Your task to perform on an android device: Find coffee shops on Maps Image 0: 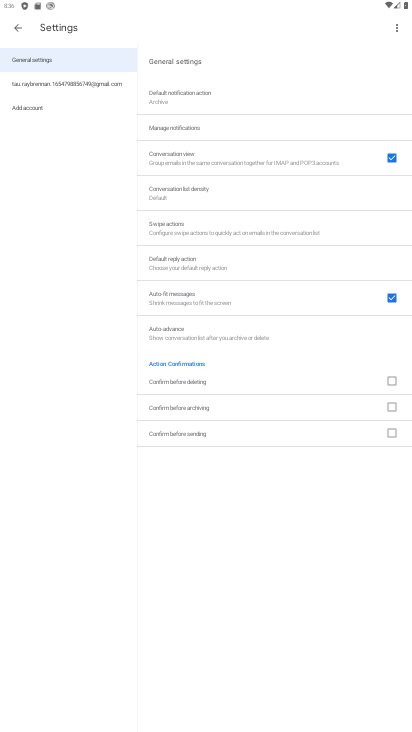
Step 0: press home button
Your task to perform on an android device: Find coffee shops on Maps Image 1: 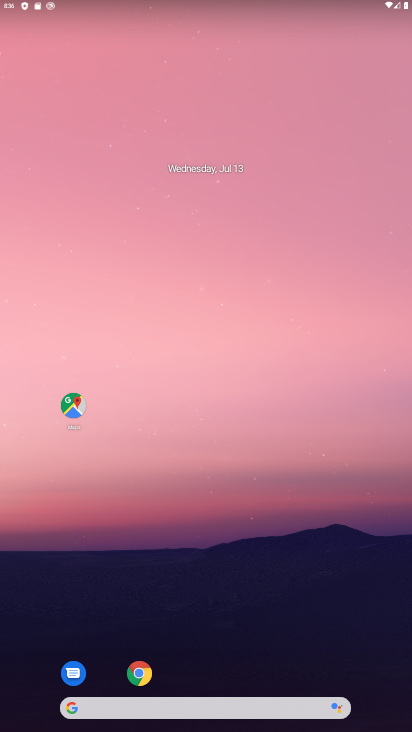
Step 1: click (78, 412)
Your task to perform on an android device: Find coffee shops on Maps Image 2: 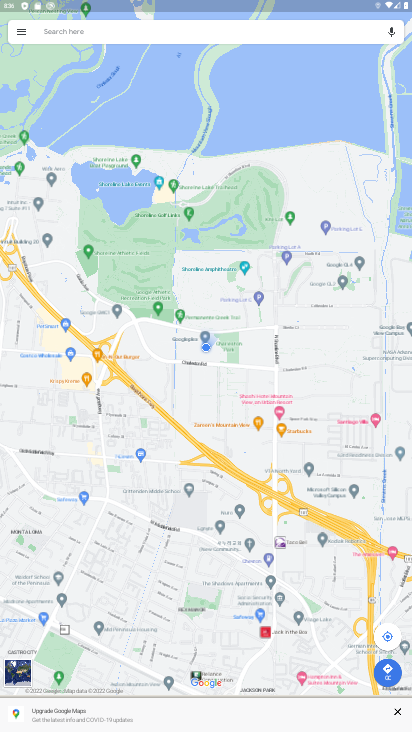
Step 2: click (106, 37)
Your task to perform on an android device: Find coffee shops on Maps Image 3: 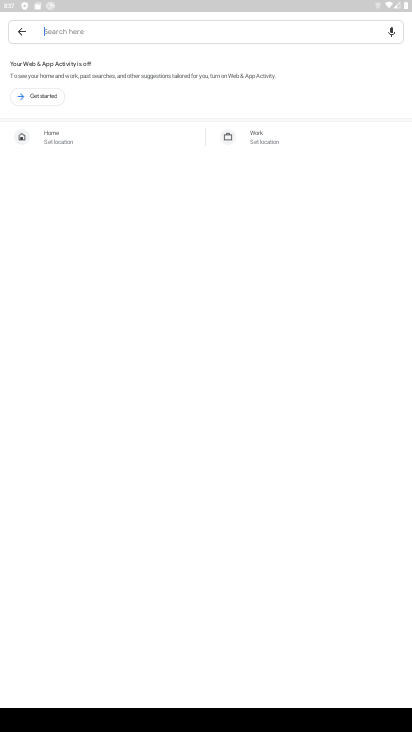
Step 3: type "coffe shop"
Your task to perform on an android device: Find coffee shops on Maps Image 4: 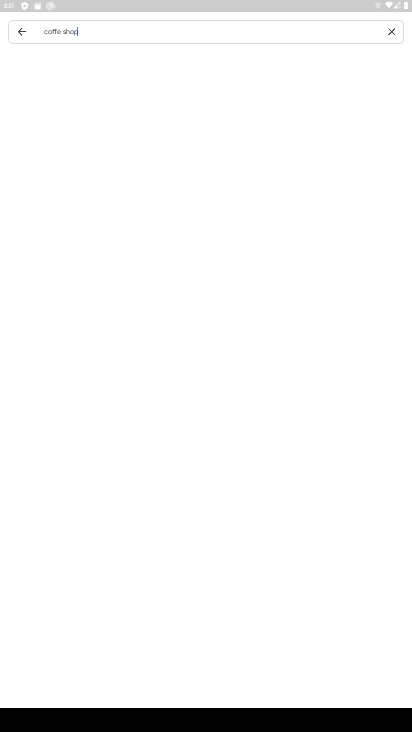
Step 4: type ""
Your task to perform on an android device: Find coffee shops on Maps Image 5: 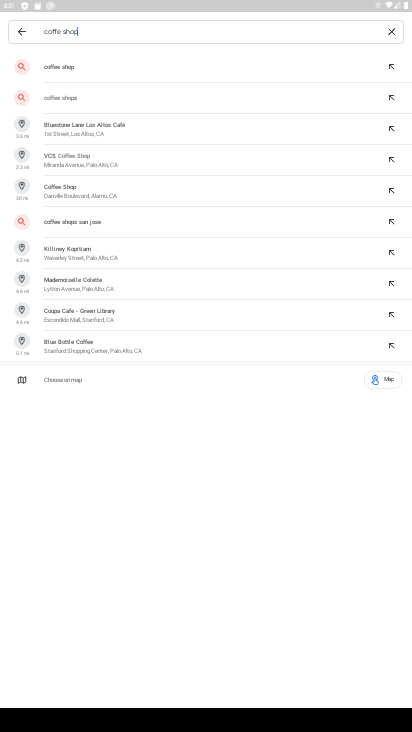
Step 5: type ""
Your task to perform on an android device: Find coffee shops on Maps Image 6: 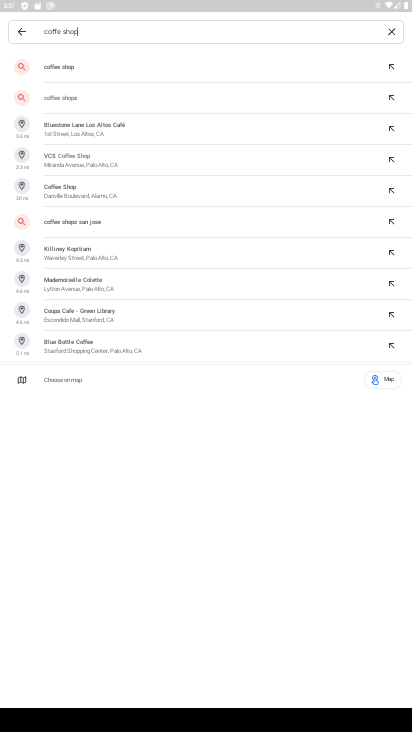
Step 6: click (203, 54)
Your task to perform on an android device: Find coffee shops on Maps Image 7: 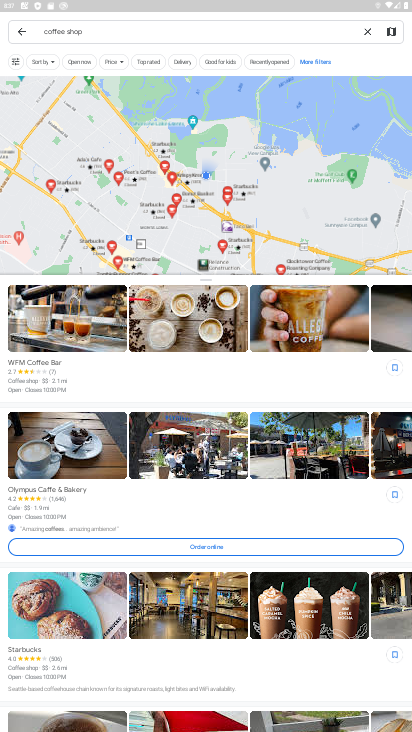
Step 7: task complete